Your task to perform on an android device: find which apps use the phone's location Image 0: 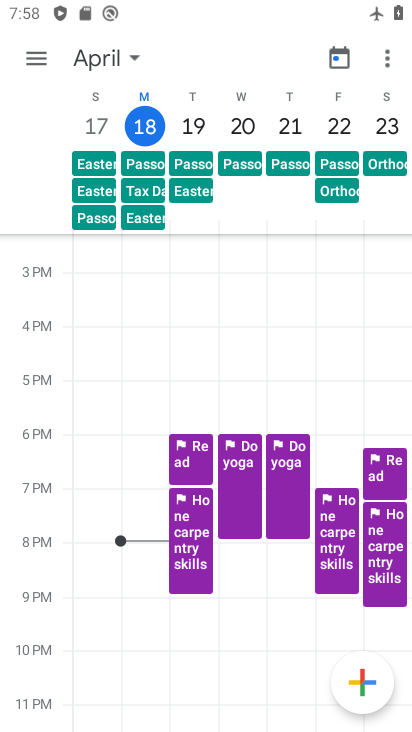
Step 0: press home button
Your task to perform on an android device: find which apps use the phone's location Image 1: 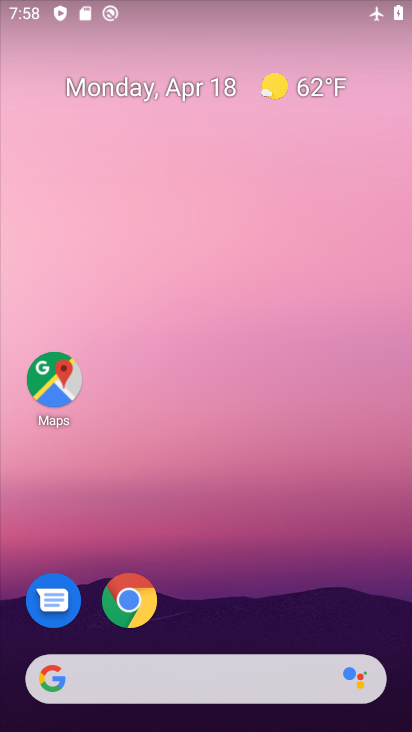
Step 1: drag from (200, 564) to (360, 483)
Your task to perform on an android device: find which apps use the phone's location Image 2: 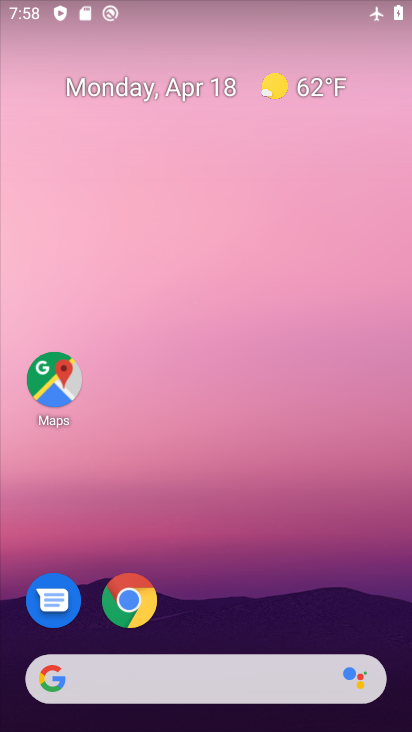
Step 2: drag from (223, 643) to (261, 46)
Your task to perform on an android device: find which apps use the phone's location Image 3: 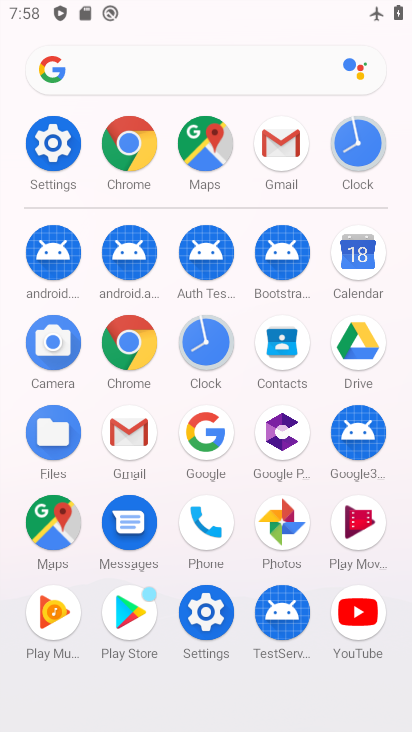
Step 3: click (201, 620)
Your task to perform on an android device: find which apps use the phone's location Image 4: 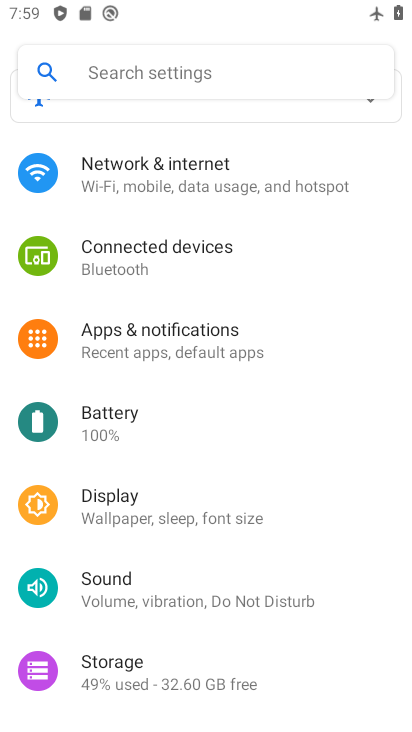
Step 4: drag from (178, 549) to (182, 83)
Your task to perform on an android device: find which apps use the phone's location Image 5: 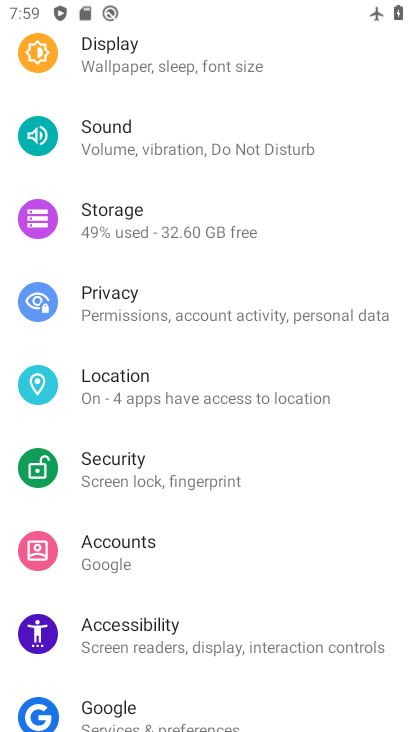
Step 5: click (124, 391)
Your task to perform on an android device: find which apps use the phone's location Image 6: 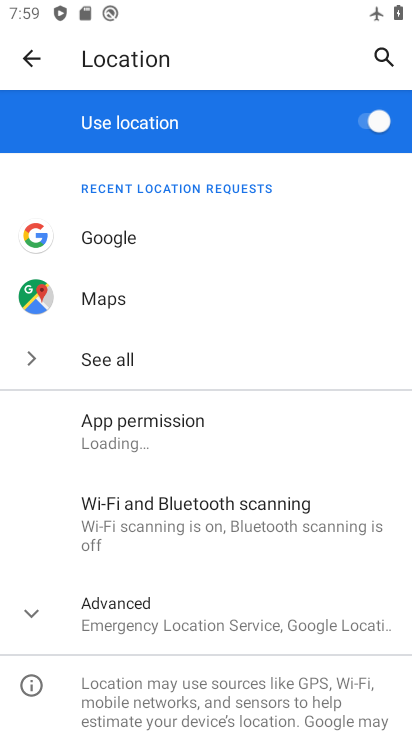
Step 6: click (193, 624)
Your task to perform on an android device: find which apps use the phone's location Image 7: 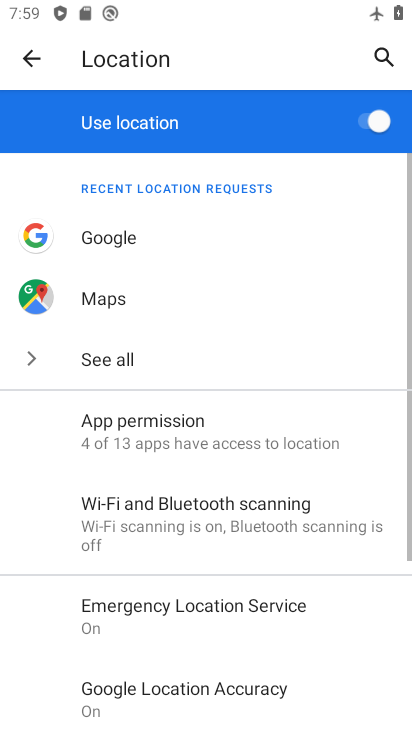
Step 7: click (146, 441)
Your task to perform on an android device: find which apps use the phone's location Image 8: 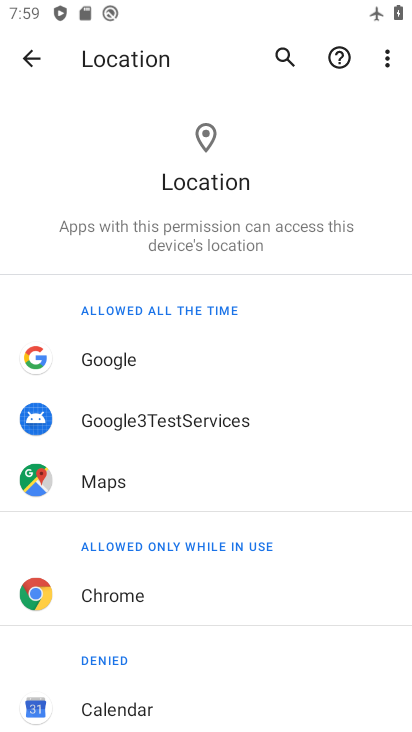
Step 8: task complete